Your task to perform on an android device: toggle improve location accuracy Image 0: 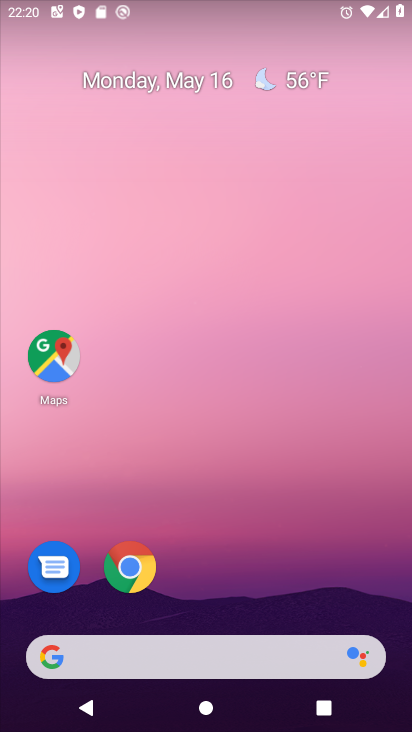
Step 0: drag from (241, 580) to (264, 225)
Your task to perform on an android device: toggle improve location accuracy Image 1: 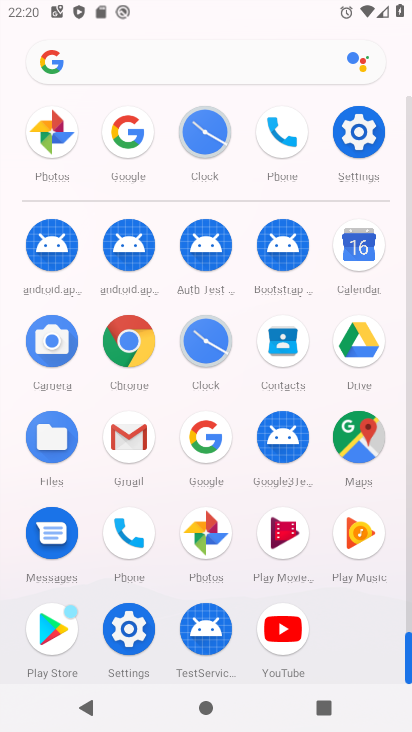
Step 1: click (365, 121)
Your task to perform on an android device: toggle improve location accuracy Image 2: 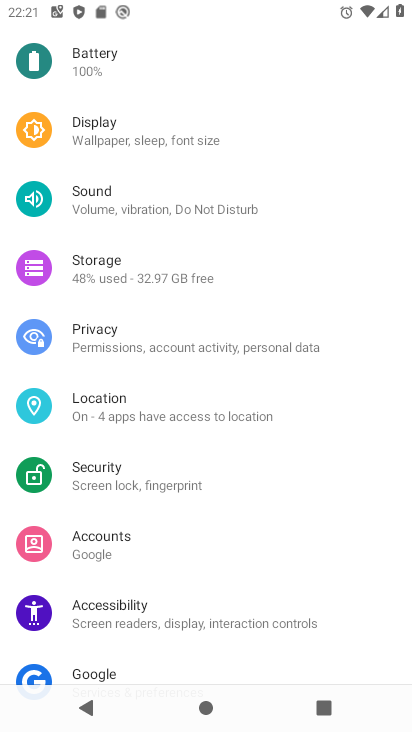
Step 2: click (124, 399)
Your task to perform on an android device: toggle improve location accuracy Image 3: 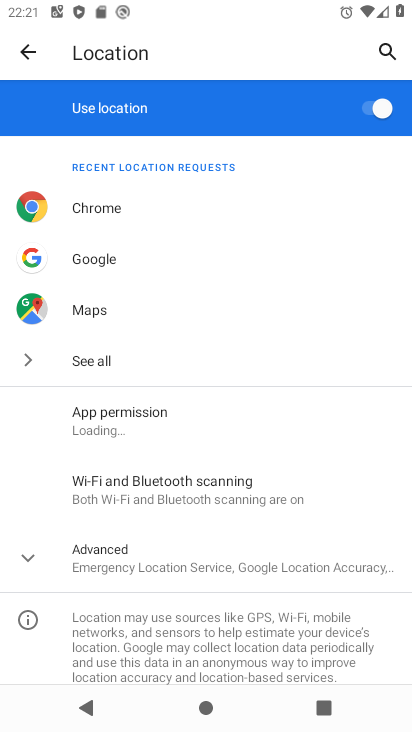
Step 3: click (176, 558)
Your task to perform on an android device: toggle improve location accuracy Image 4: 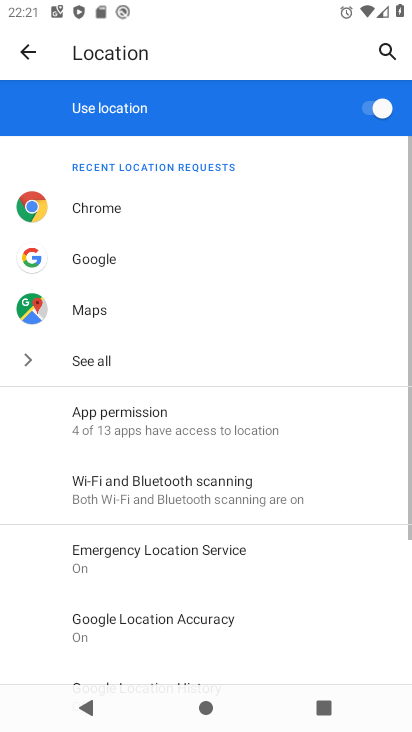
Step 4: drag from (162, 624) to (153, 495)
Your task to perform on an android device: toggle improve location accuracy Image 5: 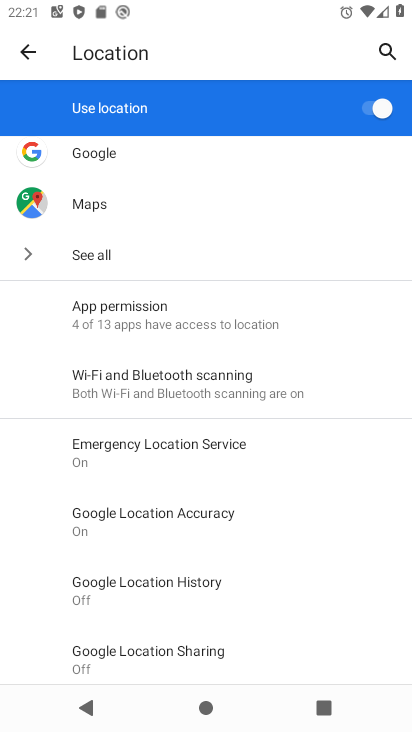
Step 5: click (126, 523)
Your task to perform on an android device: toggle improve location accuracy Image 6: 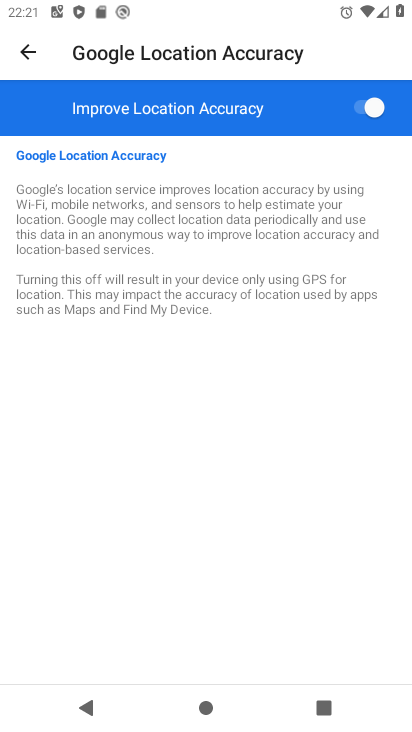
Step 6: click (359, 111)
Your task to perform on an android device: toggle improve location accuracy Image 7: 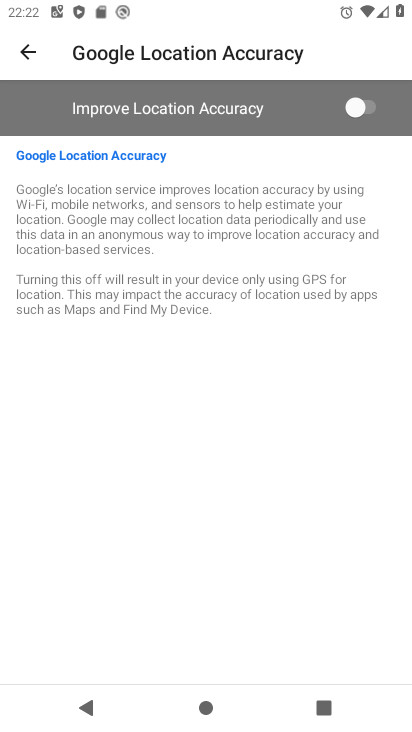
Step 7: task complete